Your task to perform on an android device: manage bookmarks in the chrome app Image 0: 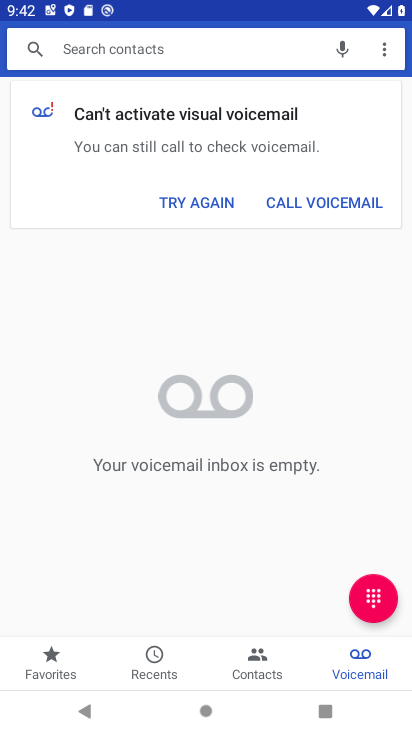
Step 0: press home button
Your task to perform on an android device: manage bookmarks in the chrome app Image 1: 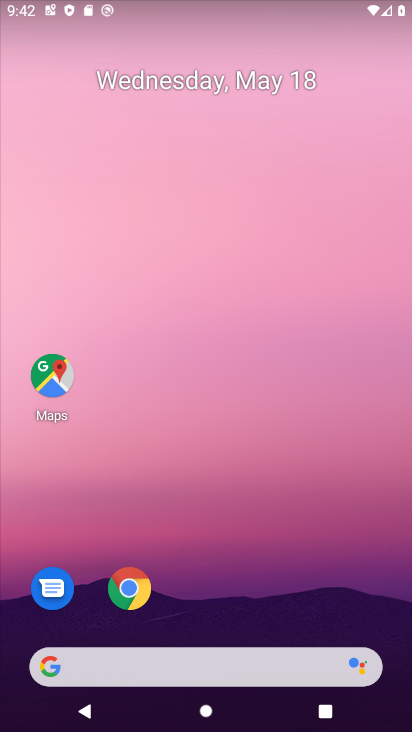
Step 1: drag from (262, 674) to (289, 264)
Your task to perform on an android device: manage bookmarks in the chrome app Image 2: 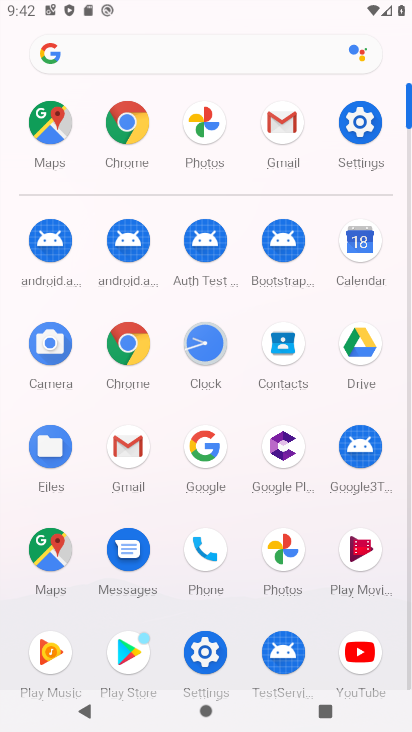
Step 2: click (113, 344)
Your task to perform on an android device: manage bookmarks in the chrome app Image 3: 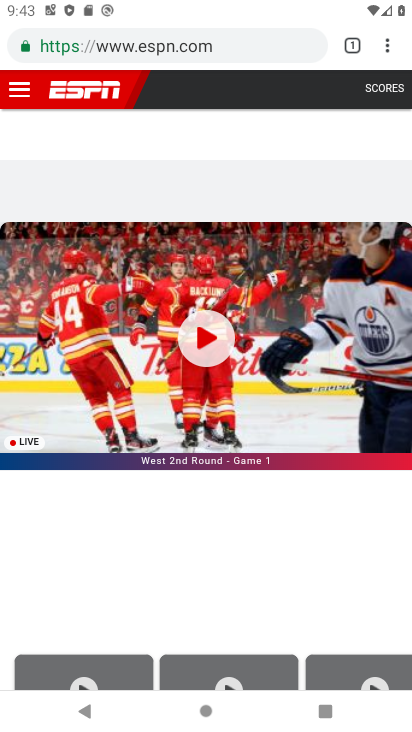
Step 3: click (393, 48)
Your task to perform on an android device: manage bookmarks in the chrome app Image 4: 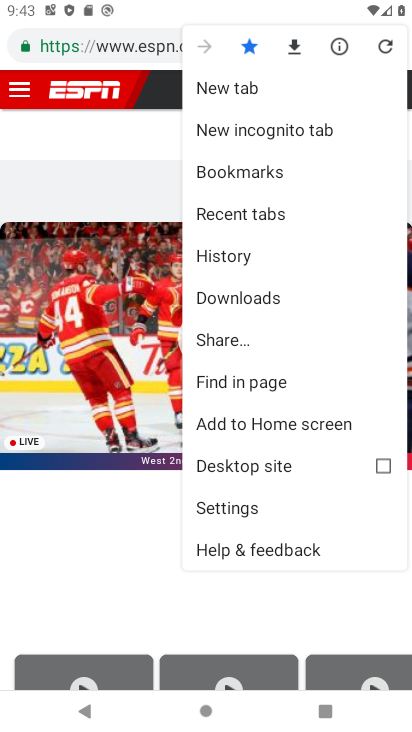
Step 4: click (232, 504)
Your task to perform on an android device: manage bookmarks in the chrome app Image 5: 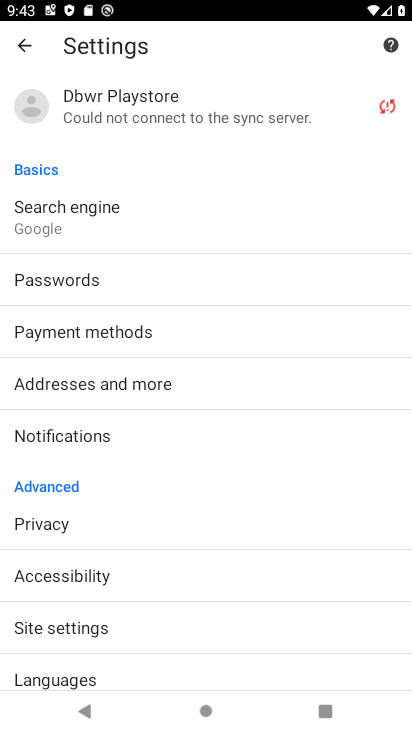
Step 5: click (23, 56)
Your task to perform on an android device: manage bookmarks in the chrome app Image 6: 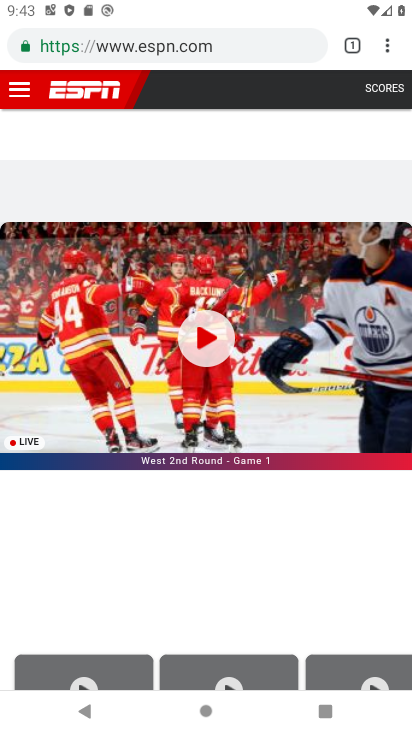
Step 6: click (390, 60)
Your task to perform on an android device: manage bookmarks in the chrome app Image 7: 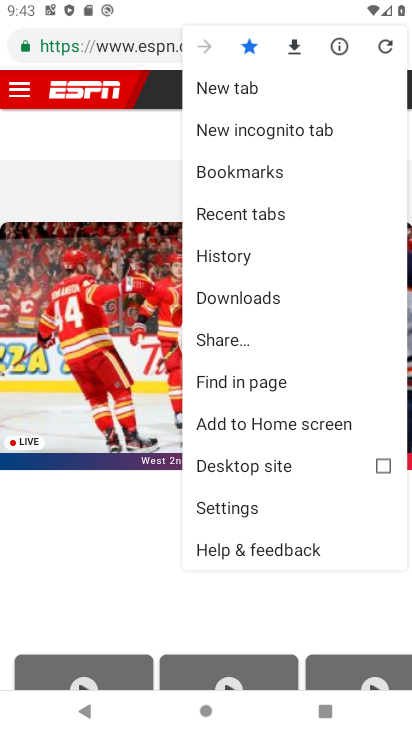
Step 7: click (249, 173)
Your task to perform on an android device: manage bookmarks in the chrome app Image 8: 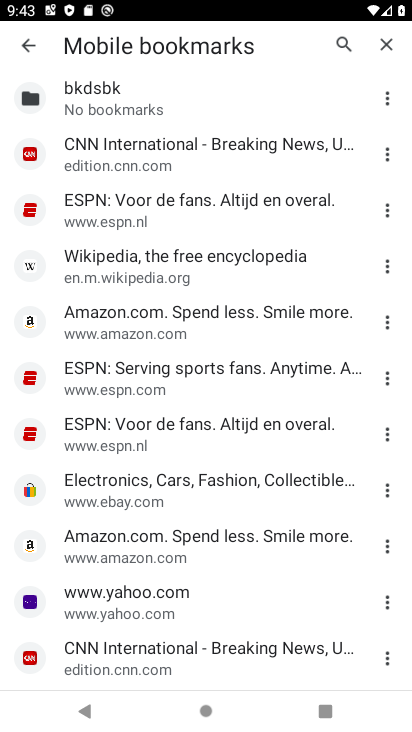
Step 8: task complete